Your task to perform on an android device: open a new tab in the chrome app Image 0: 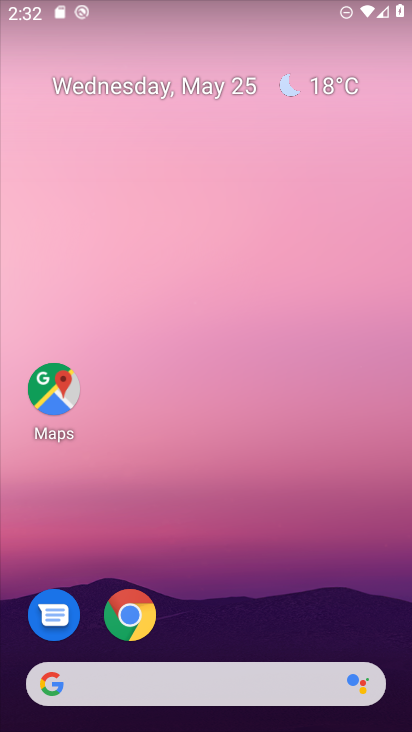
Step 0: click (145, 618)
Your task to perform on an android device: open a new tab in the chrome app Image 1: 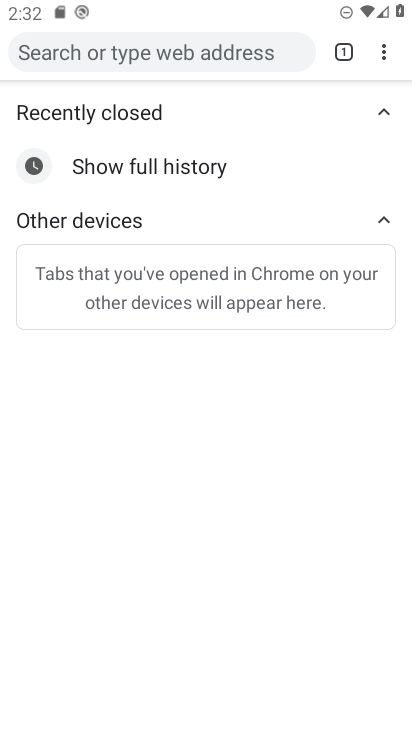
Step 1: click (382, 48)
Your task to perform on an android device: open a new tab in the chrome app Image 2: 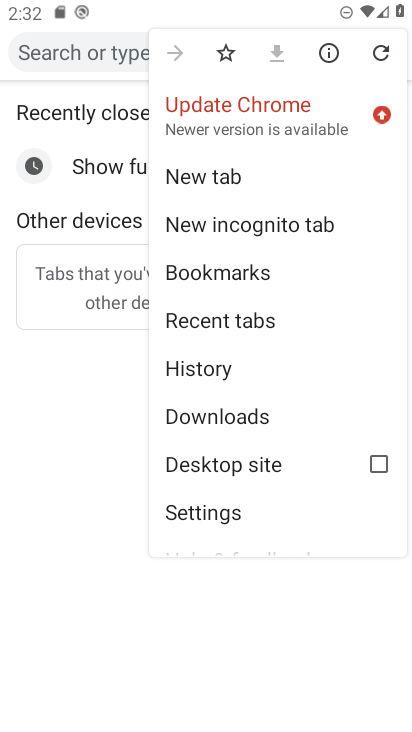
Step 2: click (258, 172)
Your task to perform on an android device: open a new tab in the chrome app Image 3: 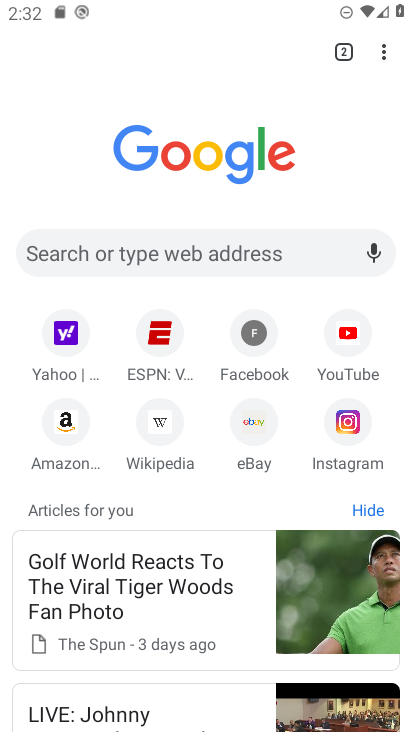
Step 3: task complete